Your task to perform on an android device: check the backup settings in the google photos Image 0: 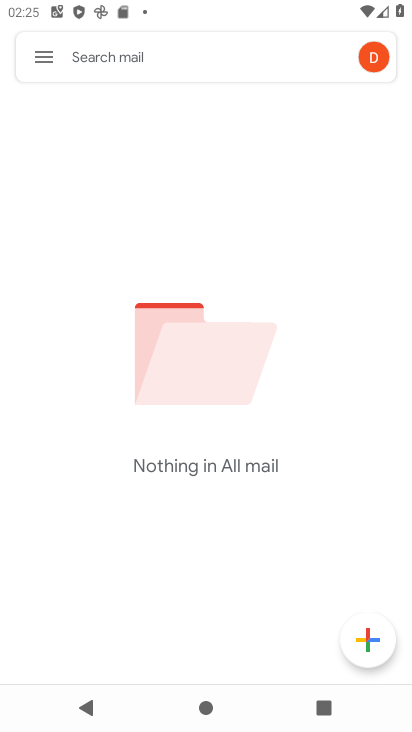
Step 0: press home button
Your task to perform on an android device: check the backup settings in the google photos Image 1: 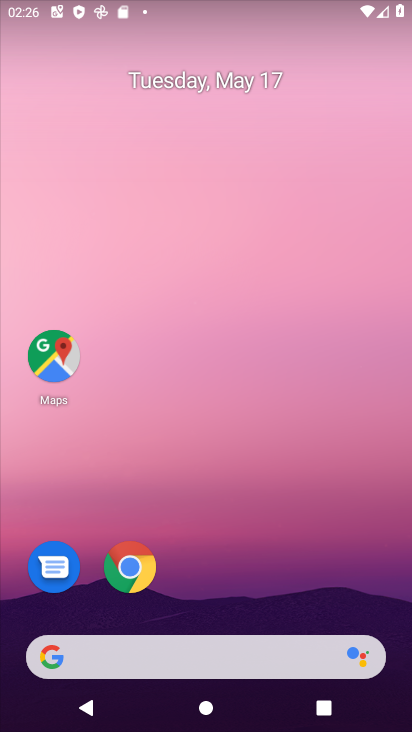
Step 1: drag from (366, 618) to (275, 81)
Your task to perform on an android device: check the backup settings in the google photos Image 2: 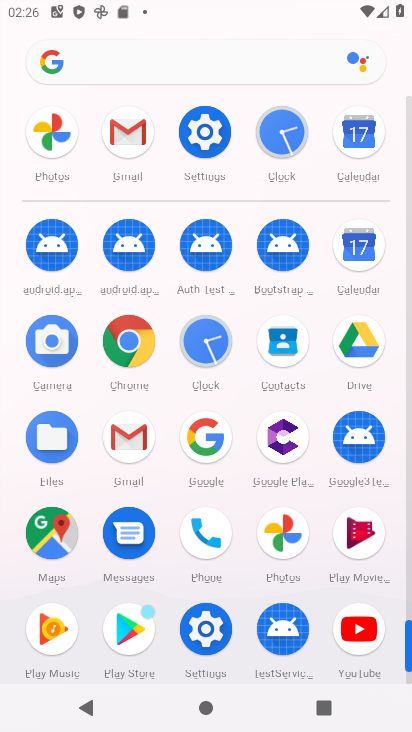
Step 2: click (282, 529)
Your task to perform on an android device: check the backup settings in the google photos Image 3: 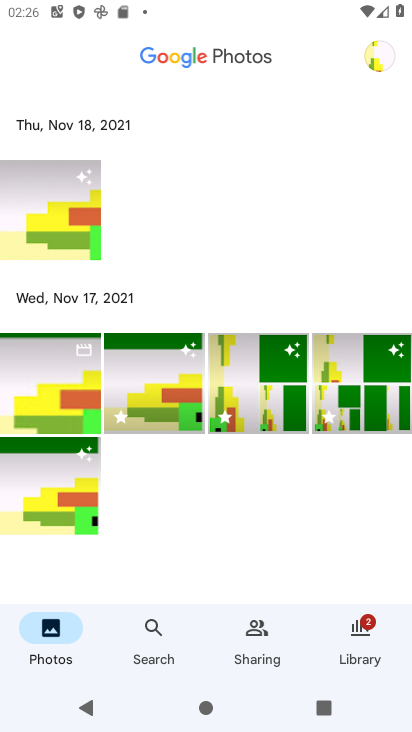
Step 3: click (379, 64)
Your task to perform on an android device: check the backup settings in the google photos Image 4: 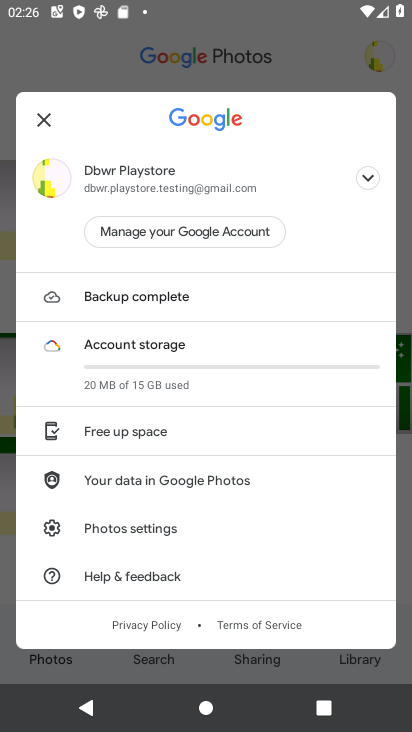
Step 4: click (134, 530)
Your task to perform on an android device: check the backup settings in the google photos Image 5: 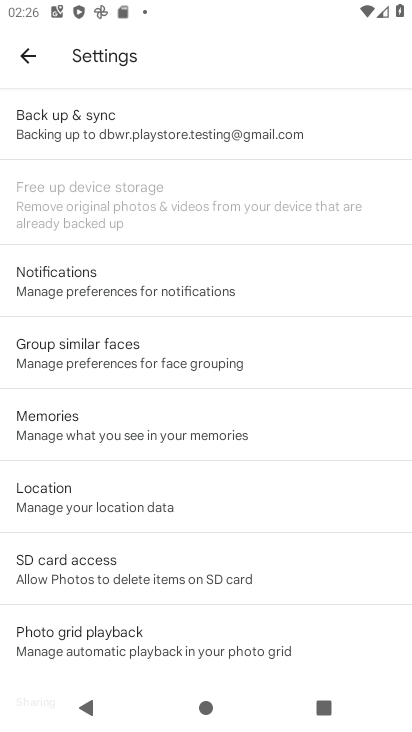
Step 5: click (107, 126)
Your task to perform on an android device: check the backup settings in the google photos Image 6: 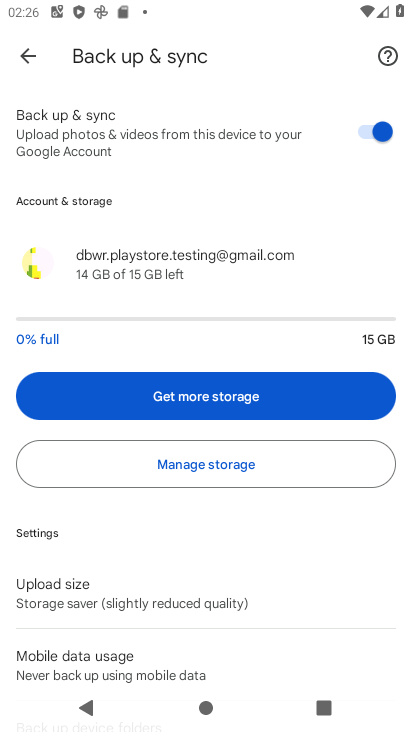
Step 6: task complete